Your task to perform on an android device: Play the last video I watched on Youtube Image 0: 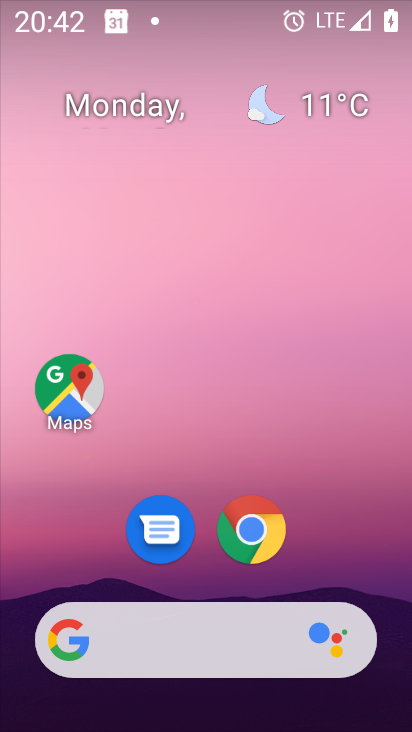
Step 0: drag from (203, 622) to (186, 50)
Your task to perform on an android device: Play the last video I watched on Youtube Image 1: 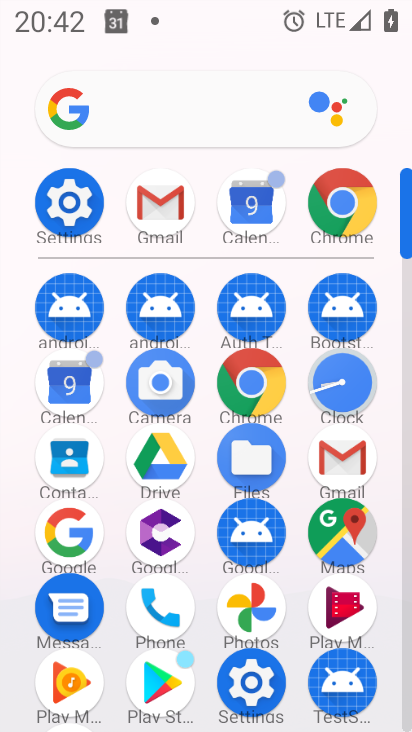
Step 1: drag from (212, 623) to (164, 101)
Your task to perform on an android device: Play the last video I watched on Youtube Image 2: 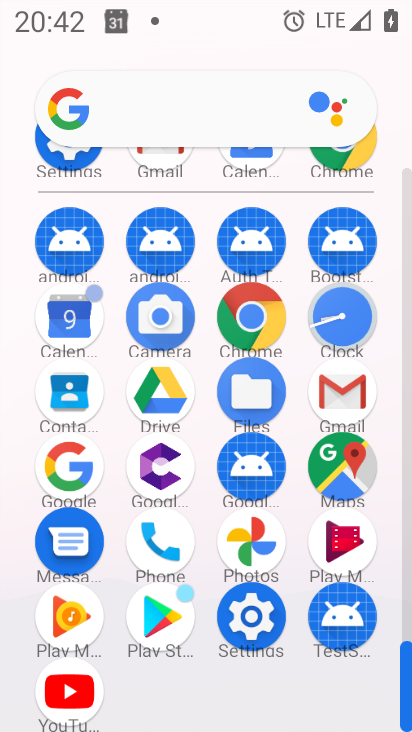
Step 2: click (90, 694)
Your task to perform on an android device: Play the last video I watched on Youtube Image 3: 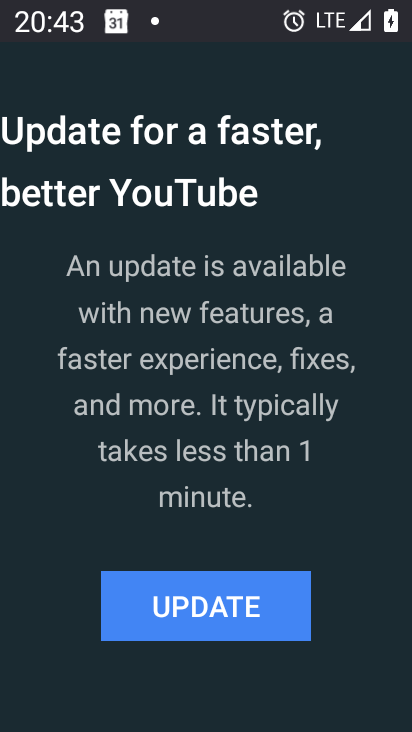
Step 3: click (177, 608)
Your task to perform on an android device: Play the last video I watched on Youtube Image 4: 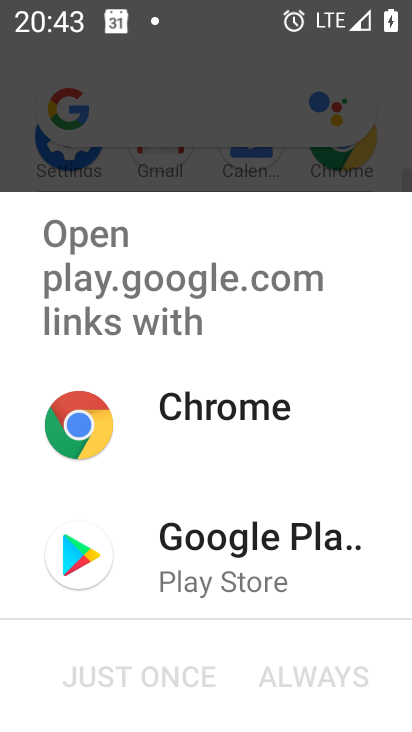
Step 4: click (266, 557)
Your task to perform on an android device: Play the last video I watched on Youtube Image 5: 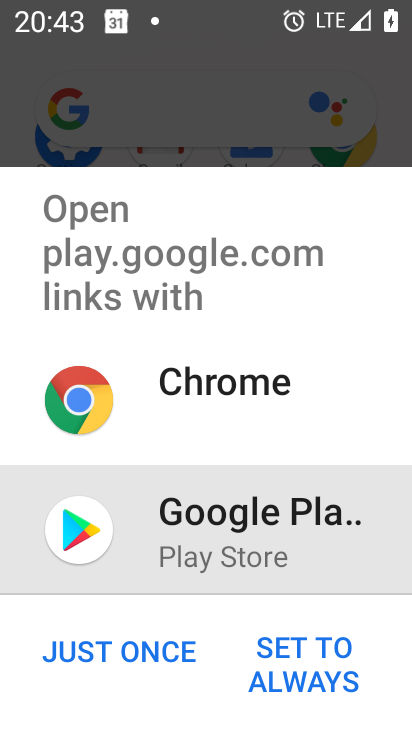
Step 5: click (93, 649)
Your task to perform on an android device: Play the last video I watched on Youtube Image 6: 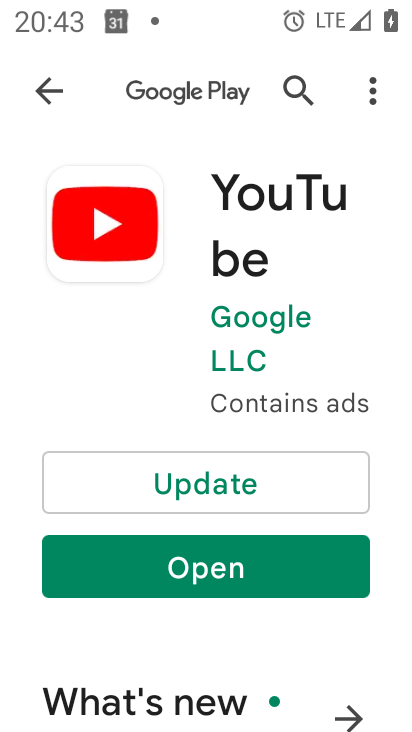
Step 6: click (204, 482)
Your task to perform on an android device: Play the last video I watched on Youtube Image 7: 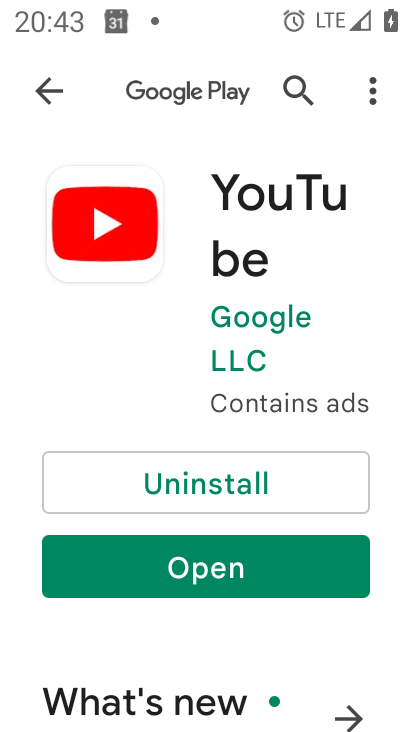
Step 7: click (216, 564)
Your task to perform on an android device: Play the last video I watched on Youtube Image 8: 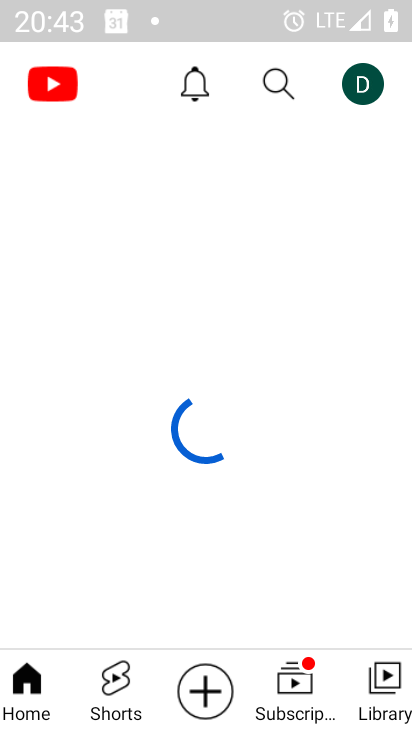
Step 8: click (377, 686)
Your task to perform on an android device: Play the last video I watched on Youtube Image 9: 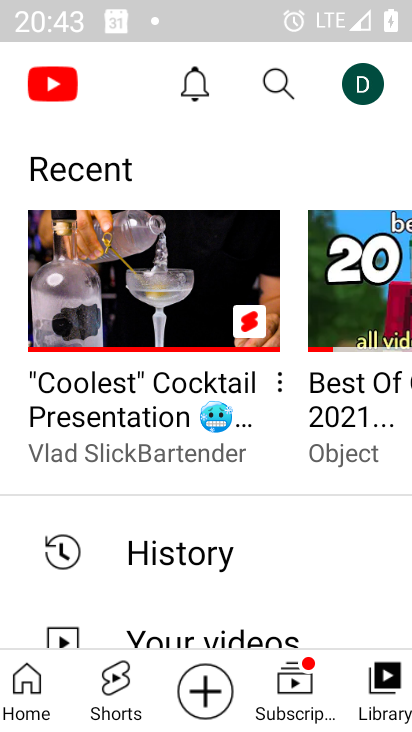
Step 9: drag from (180, 562) to (191, 166)
Your task to perform on an android device: Play the last video I watched on Youtube Image 10: 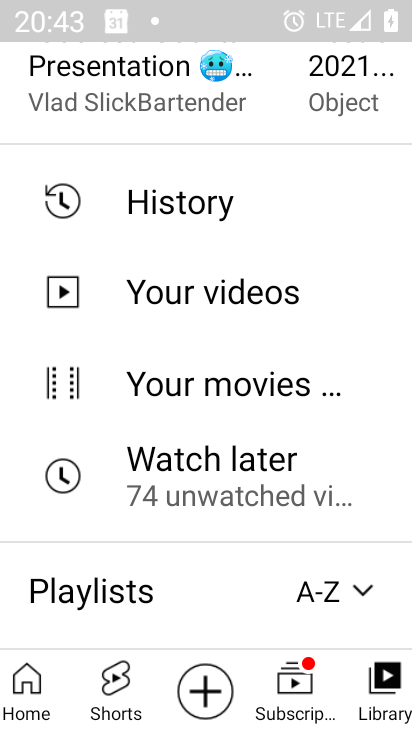
Step 10: drag from (159, 474) to (170, 551)
Your task to perform on an android device: Play the last video I watched on Youtube Image 11: 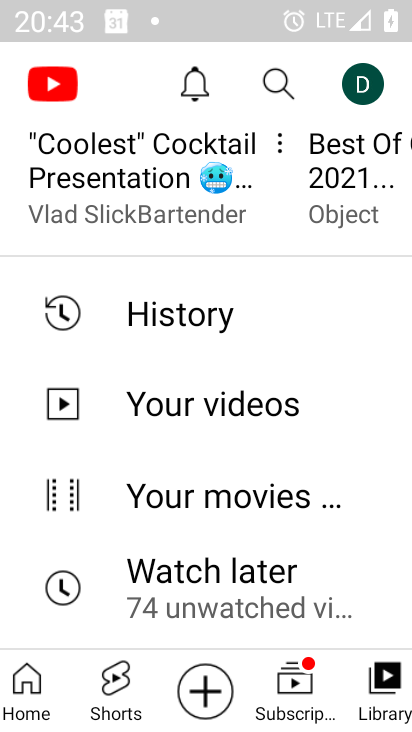
Step 11: click (176, 331)
Your task to perform on an android device: Play the last video I watched on Youtube Image 12: 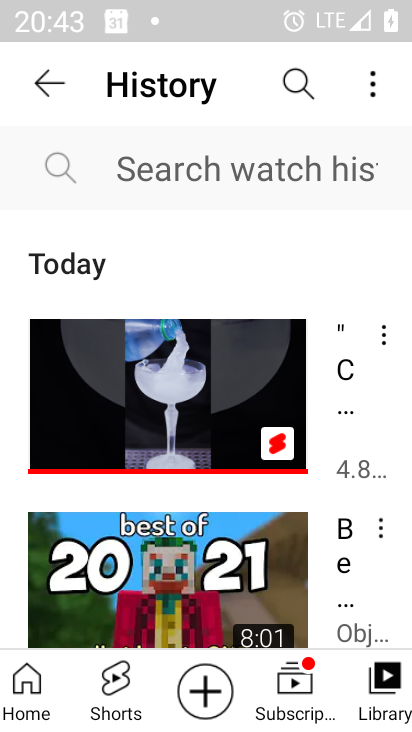
Step 12: click (174, 417)
Your task to perform on an android device: Play the last video I watched on Youtube Image 13: 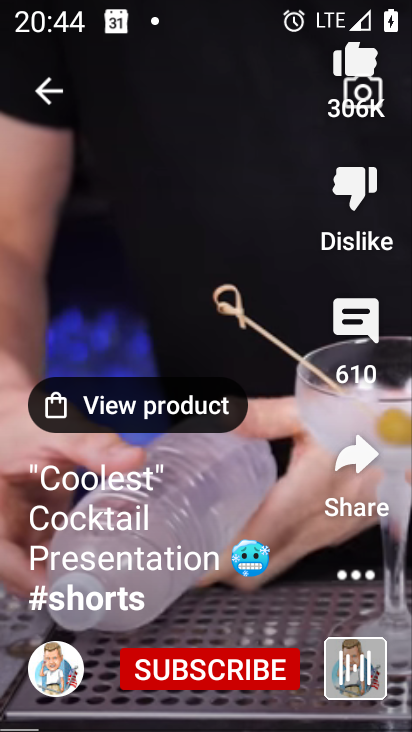
Step 13: task complete